Your task to perform on an android device: Go to Reddit.com Image 0: 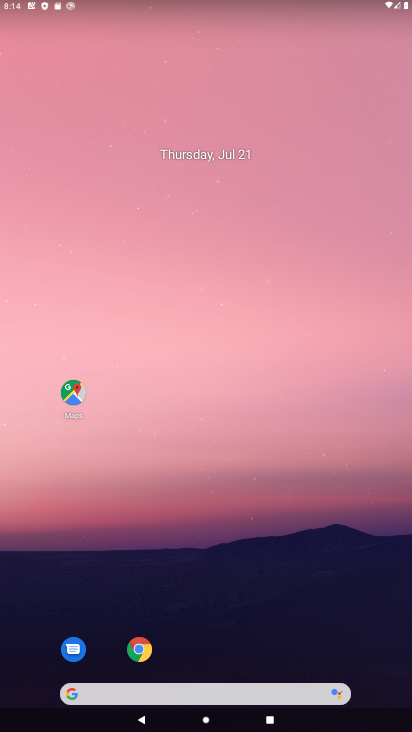
Step 0: click (129, 655)
Your task to perform on an android device: Go to Reddit.com Image 1: 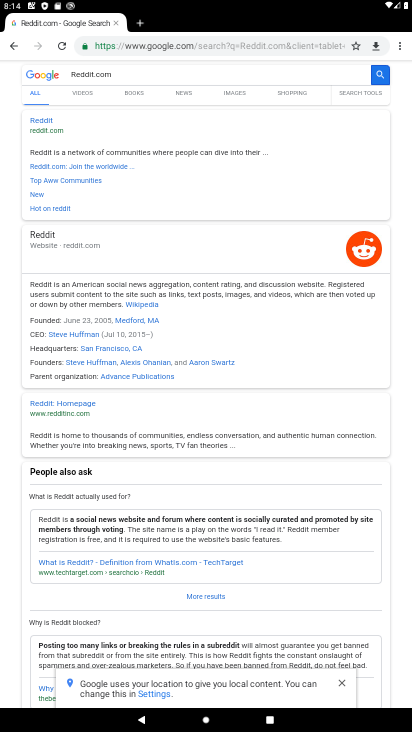
Step 1: click (42, 118)
Your task to perform on an android device: Go to Reddit.com Image 2: 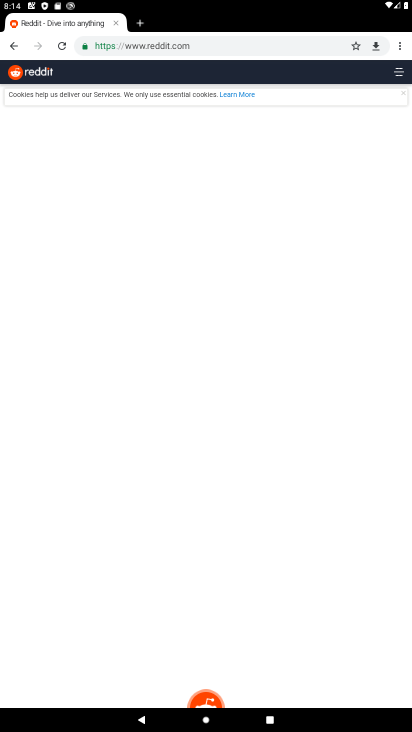
Step 2: task complete